Your task to perform on an android device: turn off improve location accuracy Image 0: 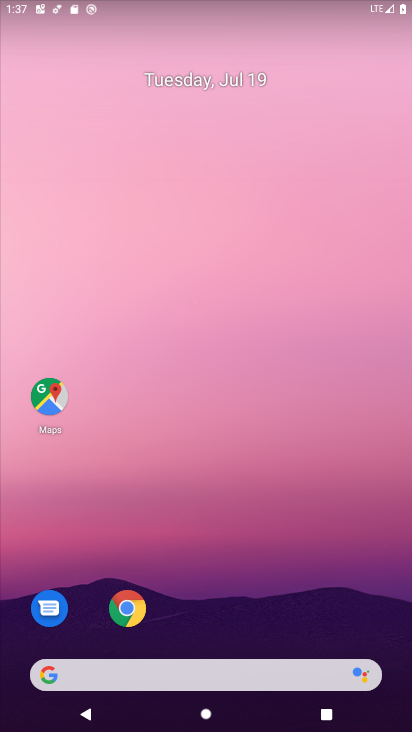
Step 0: drag from (262, 571) to (266, 89)
Your task to perform on an android device: turn off improve location accuracy Image 1: 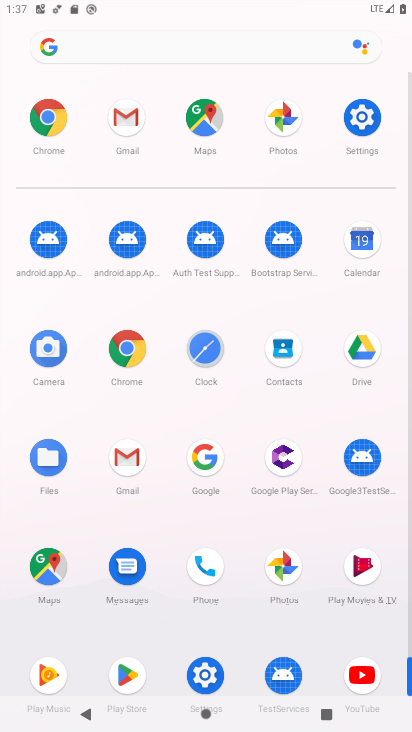
Step 1: click (206, 682)
Your task to perform on an android device: turn off improve location accuracy Image 2: 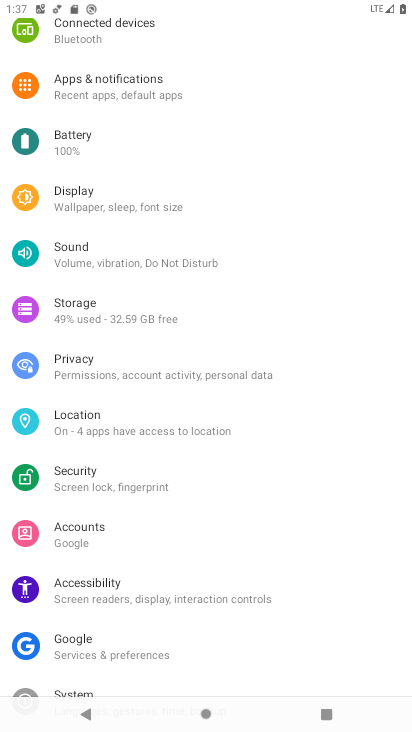
Step 2: click (107, 432)
Your task to perform on an android device: turn off improve location accuracy Image 3: 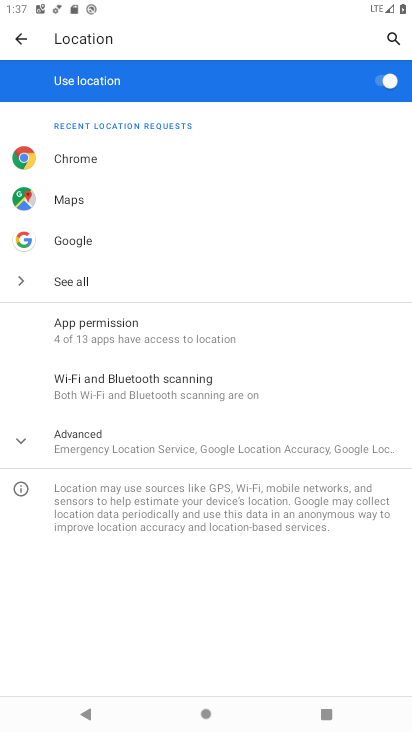
Step 3: click (108, 440)
Your task to perform on an android device: turn off improve location accuracy Image 4: 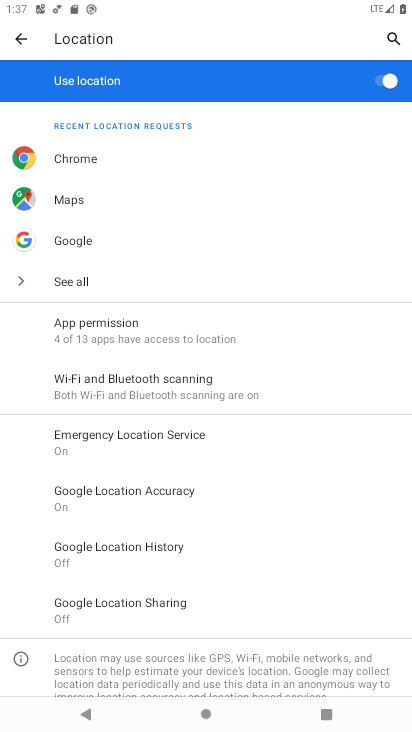
Step 4: click (173, 498)
Your task to perform on an android device: turn off improve location accuracy Image 5: 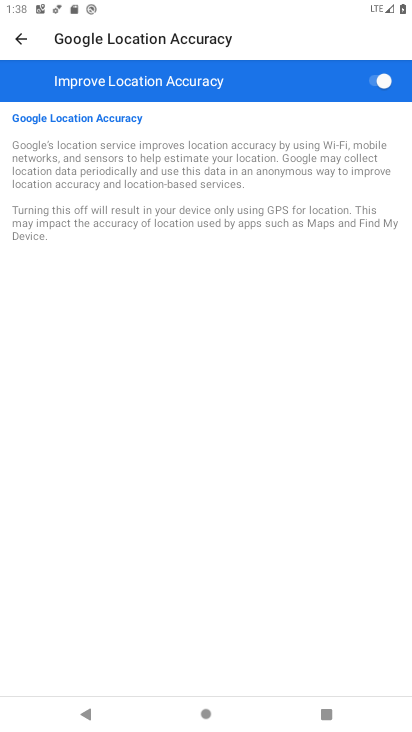
Step 5: click (377, 84)
Your task to perform on an android device: turn off improve location accuracy Image 6: 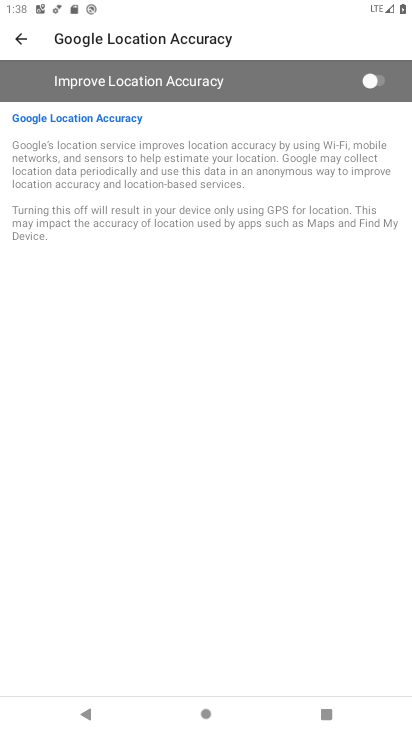
Step 6: task complete